Your task to perform on an android device: Open Maps and search for coffee Image 0: 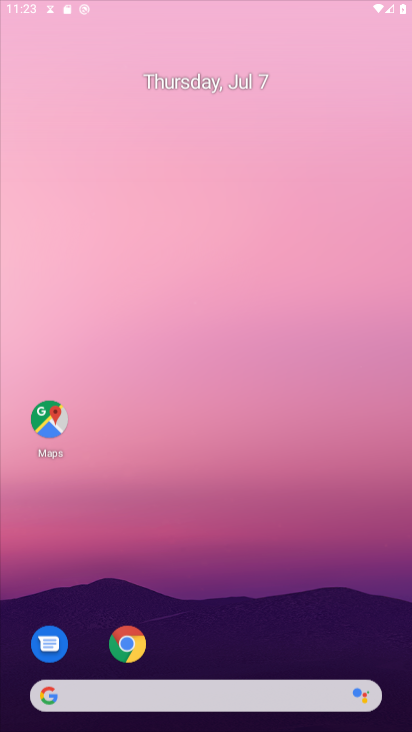
Step 0: press home button
Your task to perform on an android device: Open Maps and search for coffee Image 1: 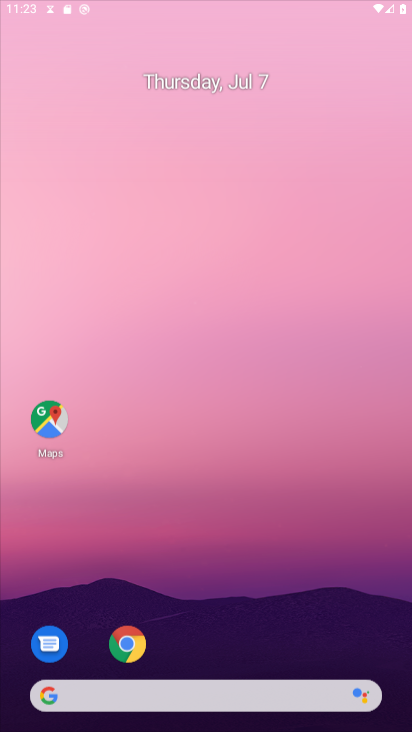
Step 1: click (255, 1)
Your task to perform on an android device: Open Maps and search for coffee Image 2: 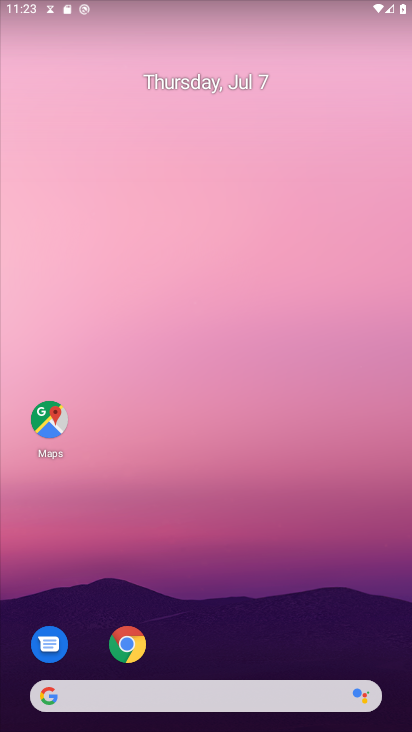
Step 2: click (53, 411)
Your task to perform on an android device: Open Maps and search for coffee Image 3: 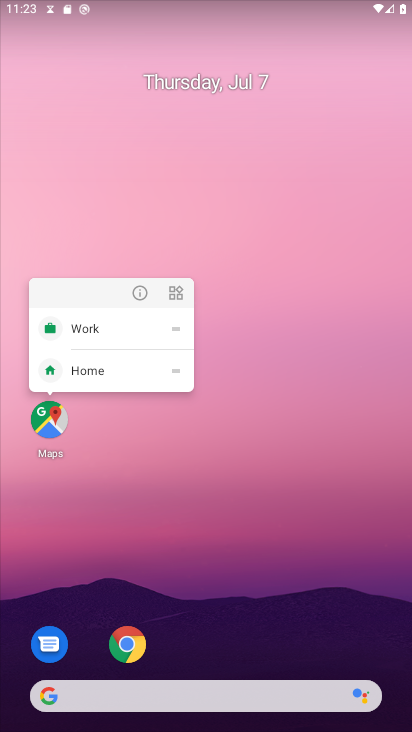
Step 3: click (51, 415)
Your task to perform on an android device: Open Maps and search for coffee Image 4: 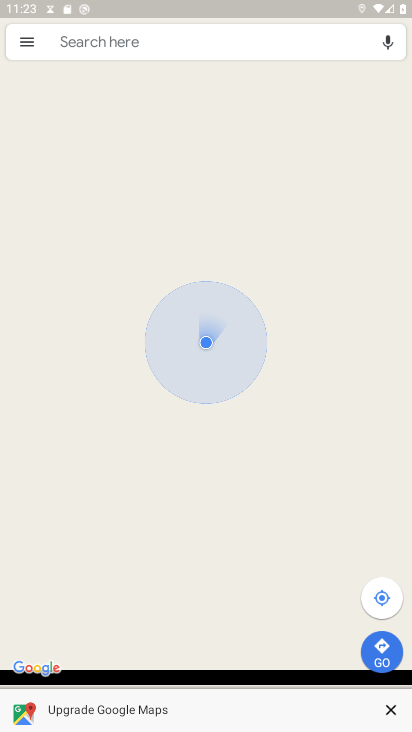
Step 4: click (150, 50)
Your task to perform on an android device: Open Maps and search for coffee Image 5: 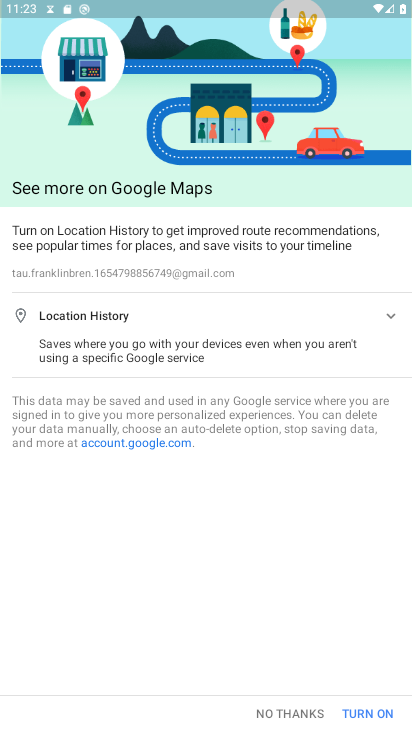
Step 5: click (370, 724)
Your task to perform on an android device: Open Maps and search for coffee Image 6: 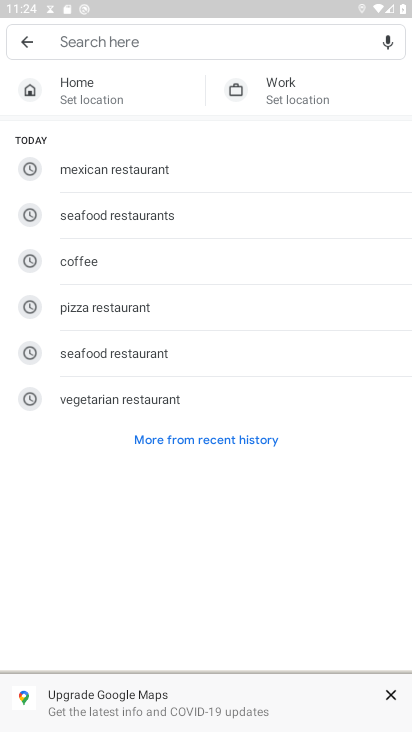
Step 6: click (81, 257)
Your task to perform on an android device: Open Maps and search for coffee Image 7: 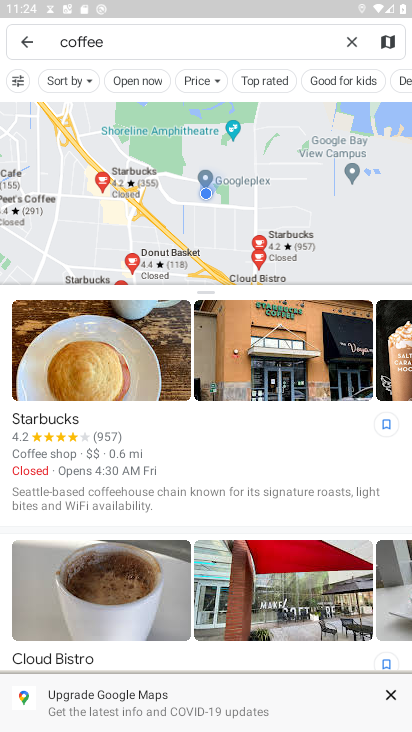
Step 7: task complete